Your task to perform on an android device: Open privacy settings Image 0: 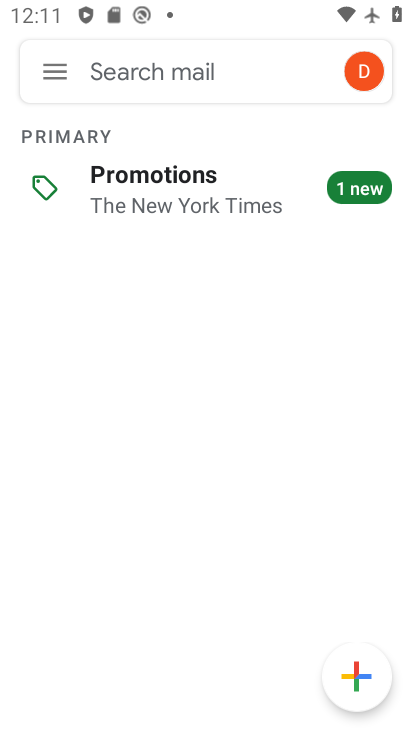
Step 0: press home button
Your task to perform on an android device: Open privacy settings Image 1: 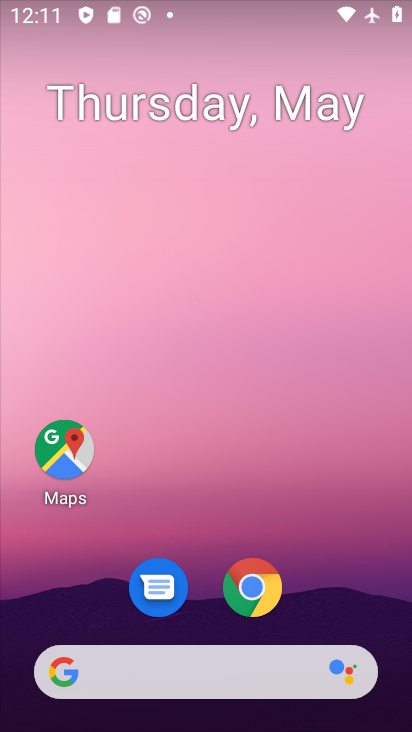
Step 1: drag from (321, 682) to (317, 141)
Your task to perform on an android device: Open privacy settings Image 2: 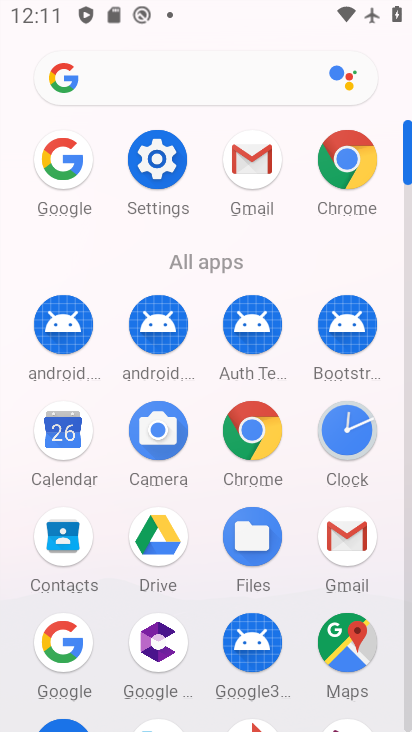
Step 2: click (274, 434)
Your task to perform on an android device: Open privacy settings Image 3: 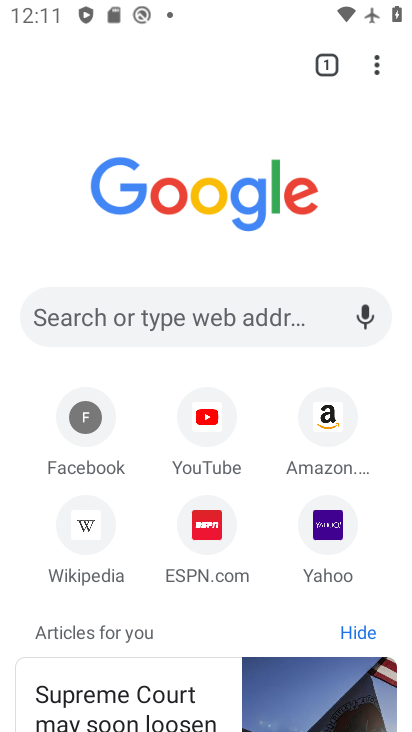
Step 3: drag from (379, 76) to (343, 219)
Your task to perform on an android device: Open privacy settings Image 4: 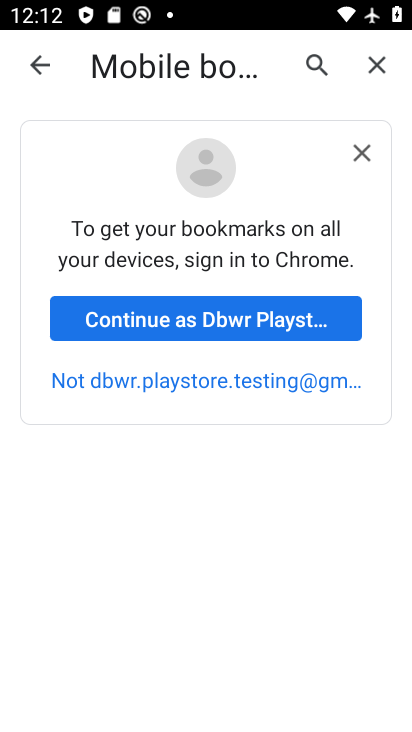
Step 4: press back button
Your task to perform on an android device: Open privacy settings Image 5: 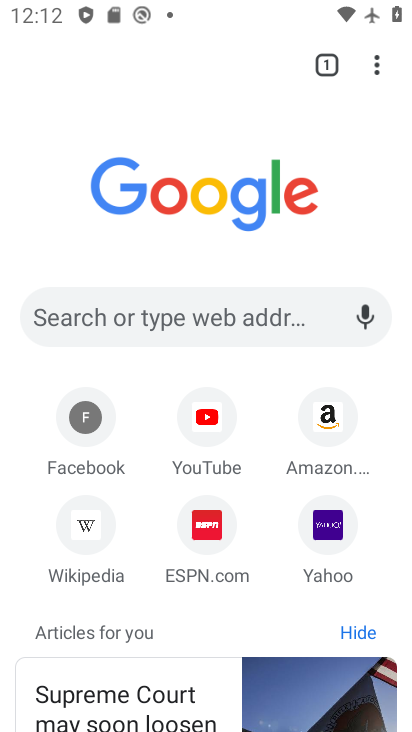
Step 5: drag from (376, 70) to (185, 546)
Your task to perform on an android device: Open privacy settings Image 6: 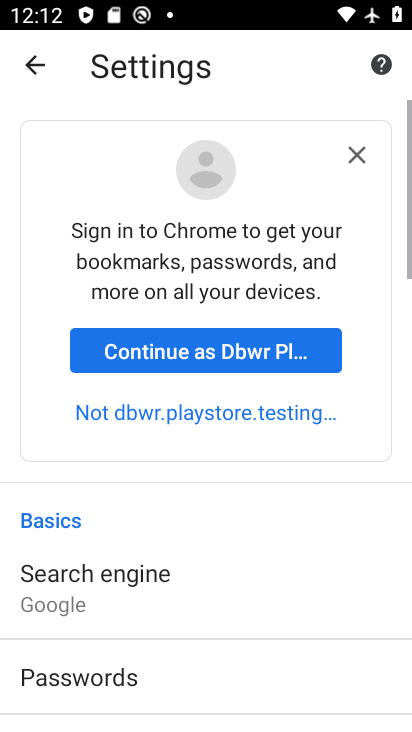
Step 6: drag from (186, 591) to (280, 27)
Your task to perform on an android device: Open privacy settings Image 7: 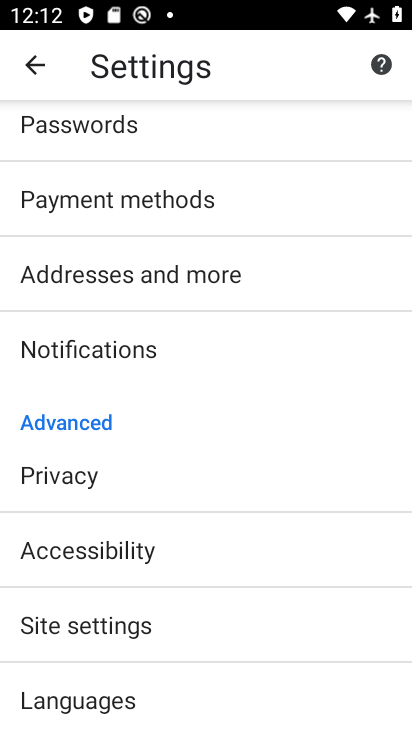
Step 7: click (165, 509)
Your task to perform on an android device: Open privacy settings Image 8: 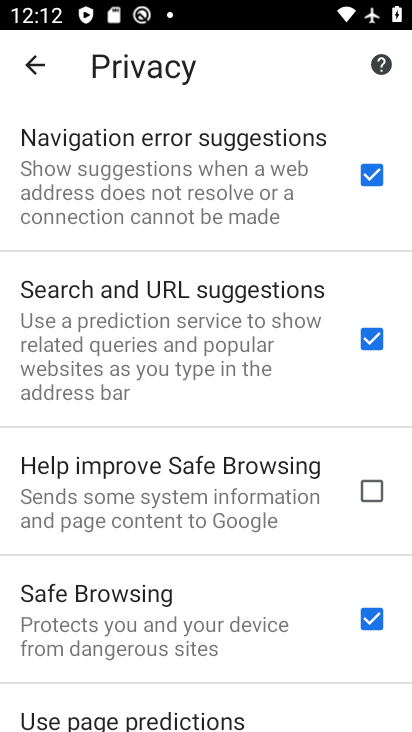
Step 8: task complete